Your task to perform on an android device: stop showing notifications on the lock screen Image 0: 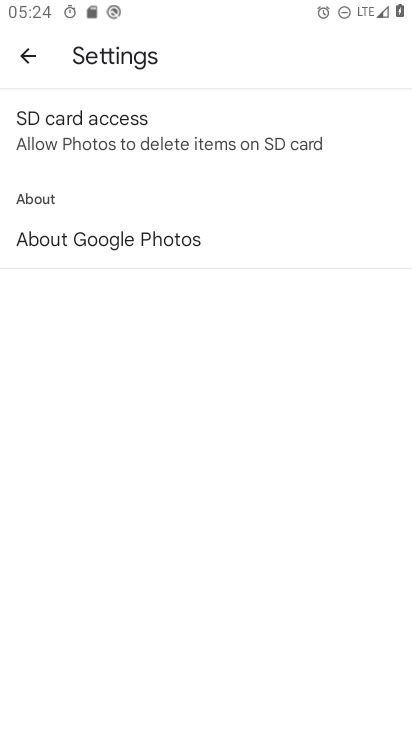
Step 0: press home button
Your task to perform on an android device: stop showing notifications on the lock screen Image 1: 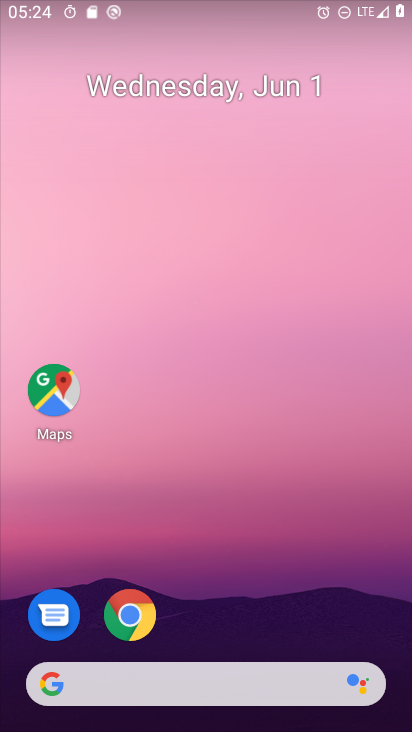
Step 1: drag from (343, 659) to (287, 4)
Your task to perform on an android device: stop showing notifications on the lock screen Image 2: 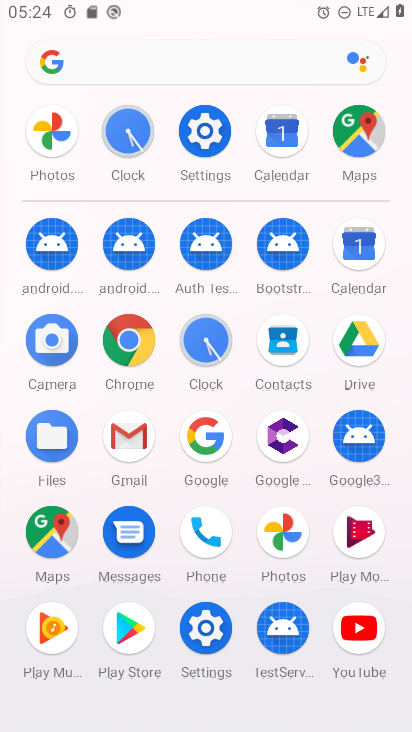
Step 2: click (202, 112)
Your task to perform on an android device: stop showing notifications on the lock screen Image 3: 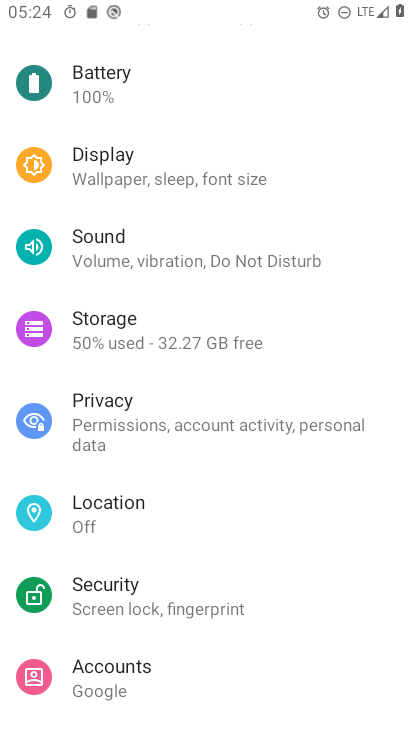
Step 3: drag from (140, 158) to (180, 671)
Your task to perform on an android device: stop showing notifications on the lock screen Image 4: 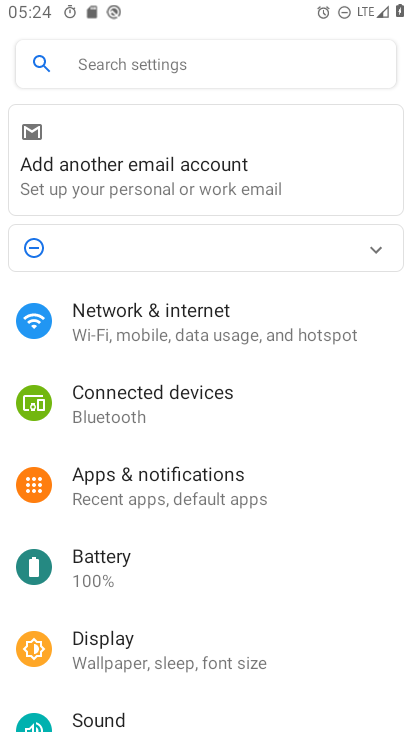
Step 4: click (214, 477)
Your task to perform on an android device: stop showing notifications on the lock screen Image 5: 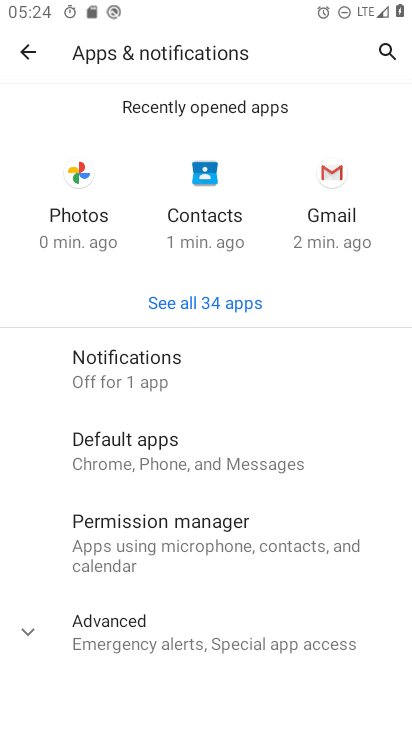
Step 5: click (157, 383)
Your task to perform on an android device: stop showing notifications on the lock screen Image 6: 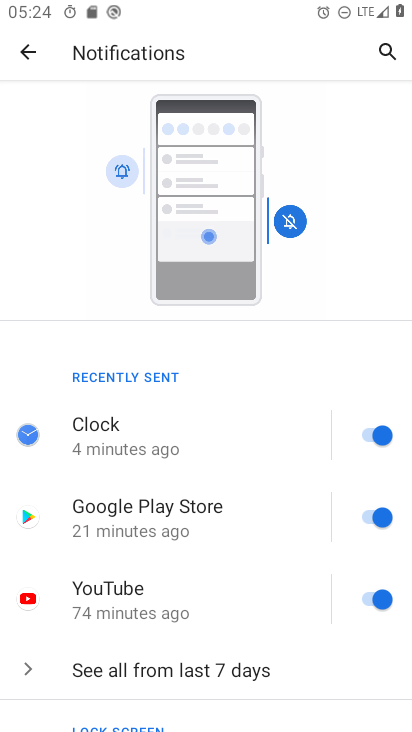
Step 6: drag from (160, 666) to (197, 186)
Your task to perform on an android device: stop showing notifications on the lock screen Image 7: 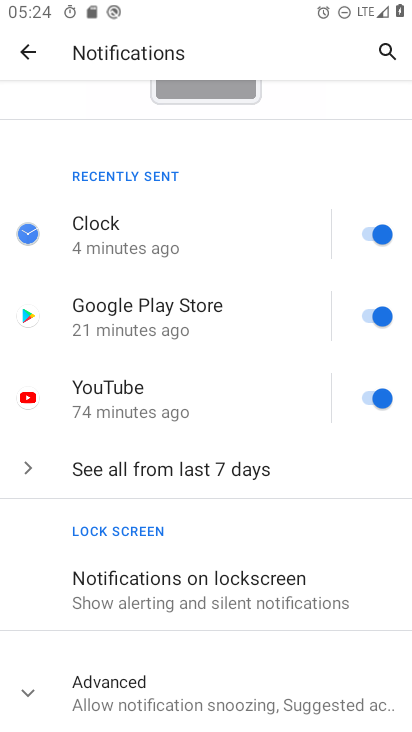
Step 7: click (161, 604)
Your task to perform on an android device: stop showing notifications on the lock screen Image 8: 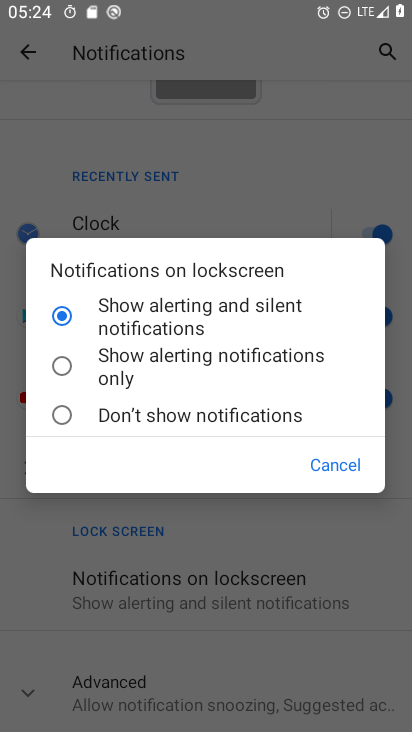
Step 8: click (64, 420)
Your task to perform on an android device: stop showing notifications on the lock screen Image 9: 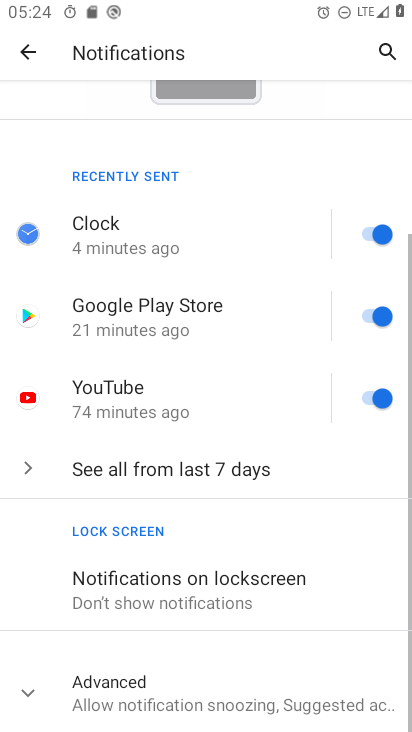
Step 9: task complete